Your task to perform on an android device: toggle javascript in the chrome app Image 0: 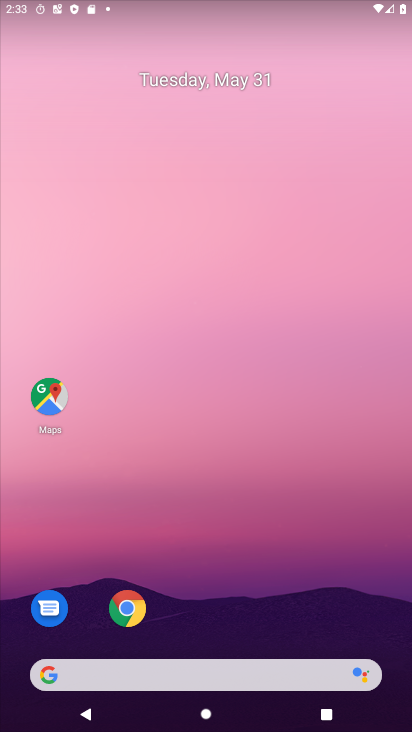
Step 0: click (127, 609)
Your task to perform on an android device: toggle javascript in the chrome app Image 1: 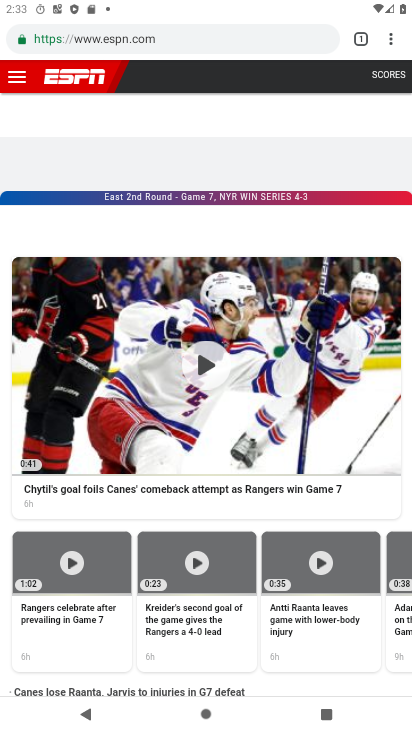
Step 1: click (389, 35)
Your task to perform on an android device: toggle javascript in the chrome app Image 2: 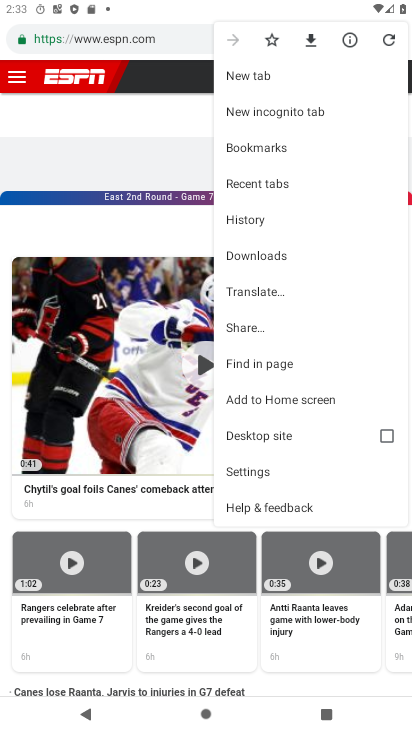
Step 2: click (255, 467)
Your task to perform on an android device: toggle javascript in the chrome app Image 3: 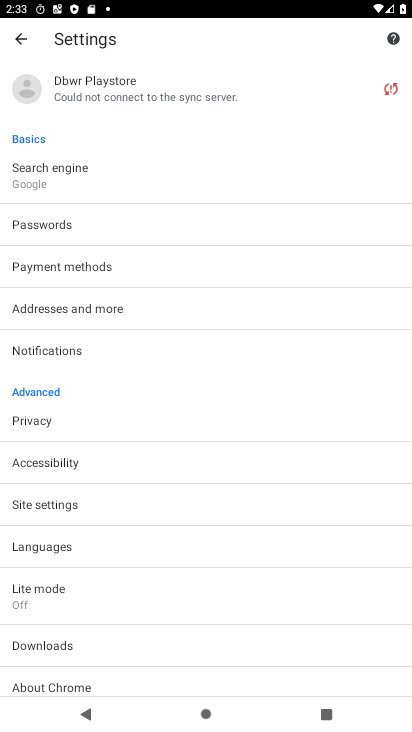
Step 3: click (58, 503)
Your task to perform on an android device: toggle javascript in the chrome app Image 4: 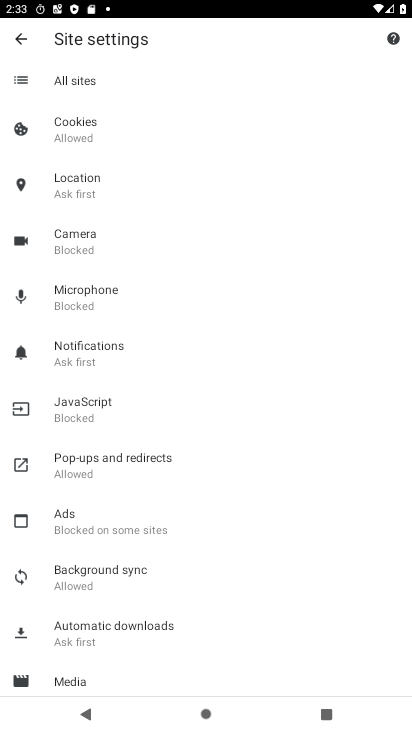
Step 4: click (92, 418)
Your task to perform on an android device: toggle javascript in the chrome app Image 5: 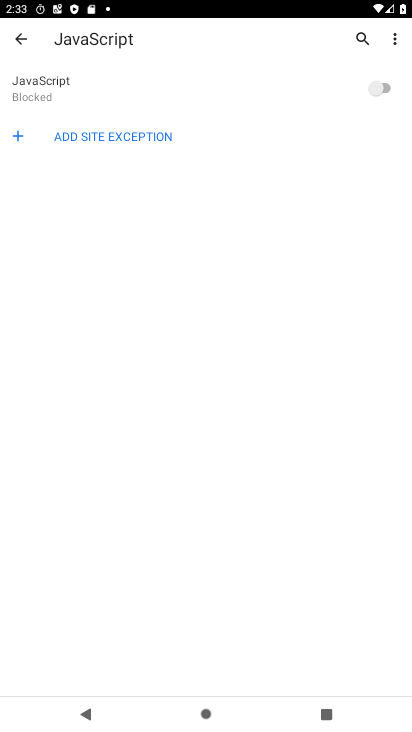
Step 5: click (390, 89)
Your task to perform on an android device: toggle javascript in the chrome app Image 6: 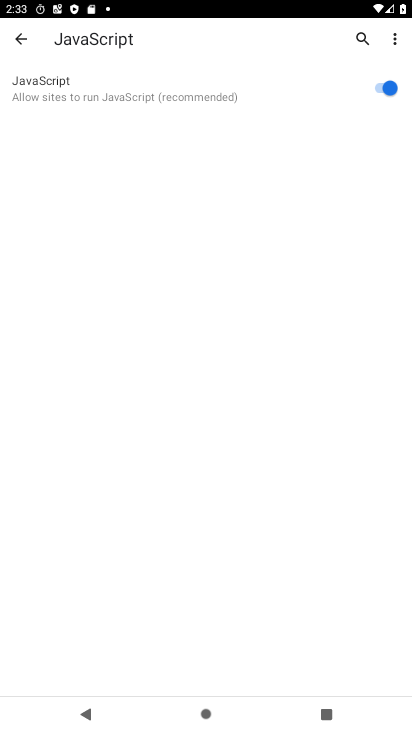
Step 6: task complete